Your task to perform on an android device: change the clock style Image 0: 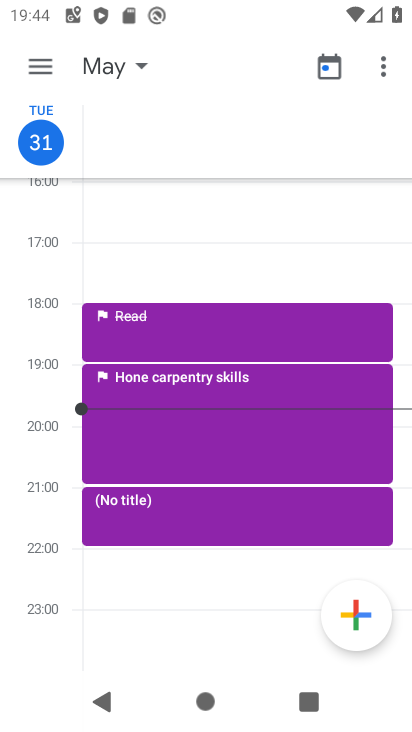
Step 0: press home button
Your task to perform on an android device: change the clock style Image 1: 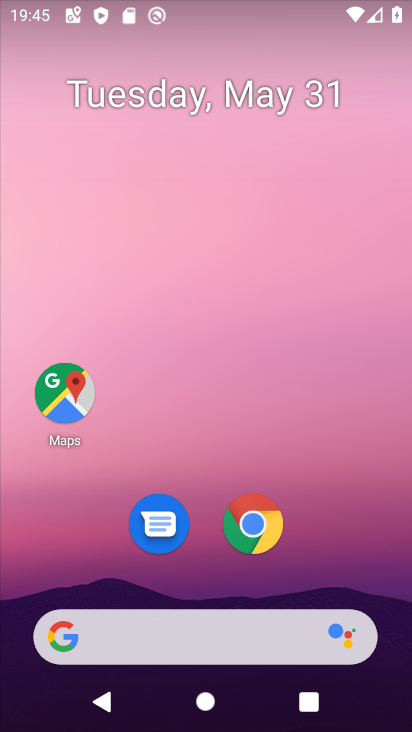
Step 1: drag from (313, 516) to (332, 1)
Your task to perform on an android device: change the clock style Image 2: 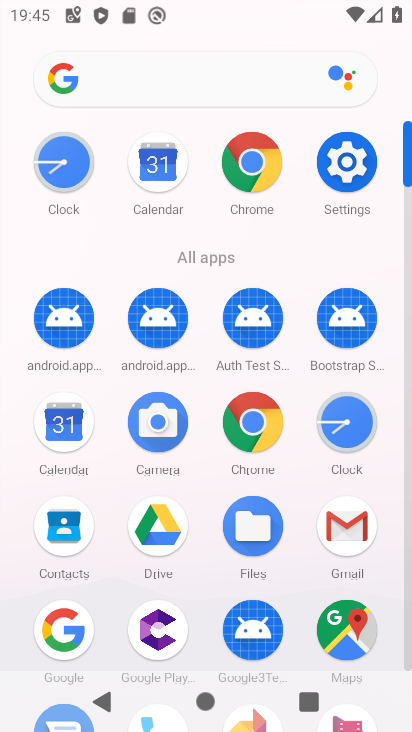
Step 2: click (348, 410)
Your task to perform on an android device: change the clock style Image 3: 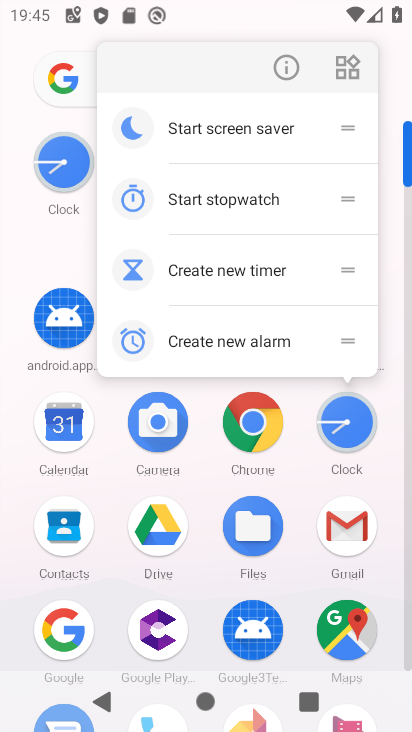
Step 3: click (348, 408)
Your task to perform on an android device: change the clock style Image 4: 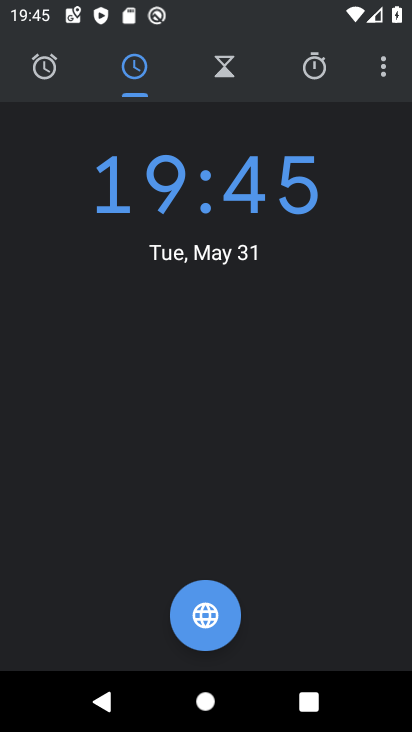
Step 4: click (384, 76)
Your task to perform on an android device: change the clock style Image 5: 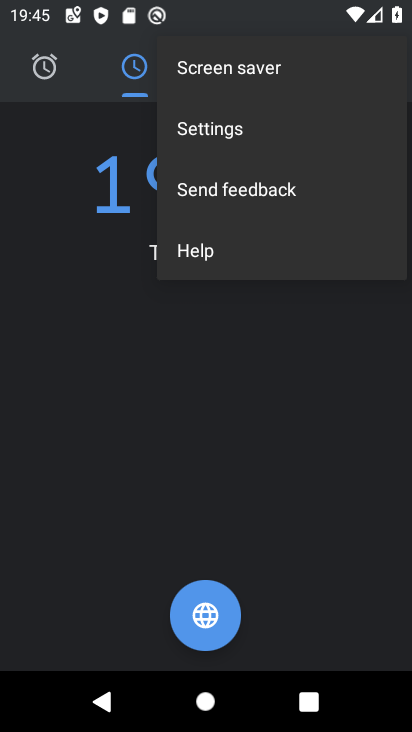
Step 5: click (327, 128)
Your task to perform on an android device: change the clock style Image 6: 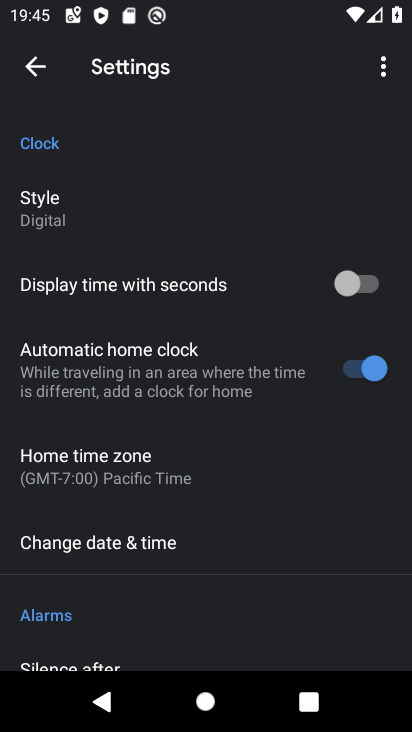
Step 6: click (59, 207)
Your task to perform on an android device: change the clock style Image 7: 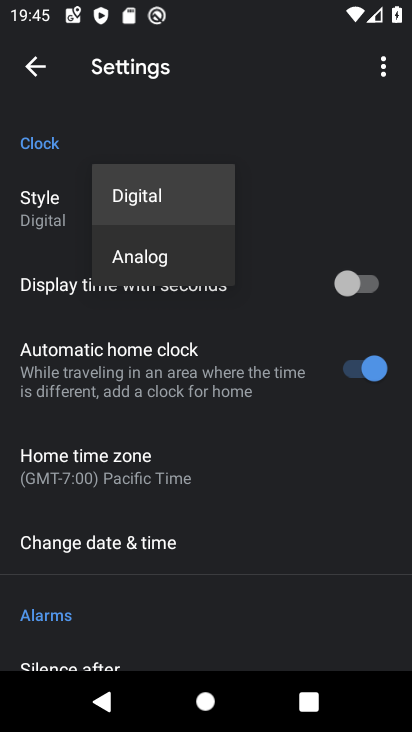
Step 7: click (136, 257)
Your task to perform on an android device: change the clock style Image 8: 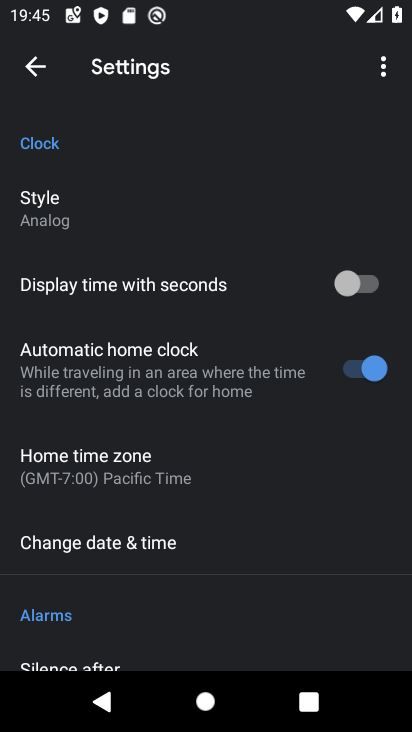
Step 8: task complete